Your task to perform on an android device: Open internet settings Image 0: 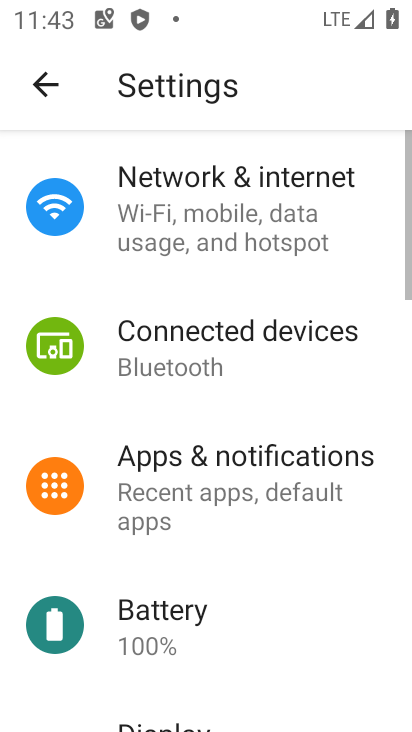
Step 0: press home button
Your task to perform on an android device: Open internet settings Image 1: 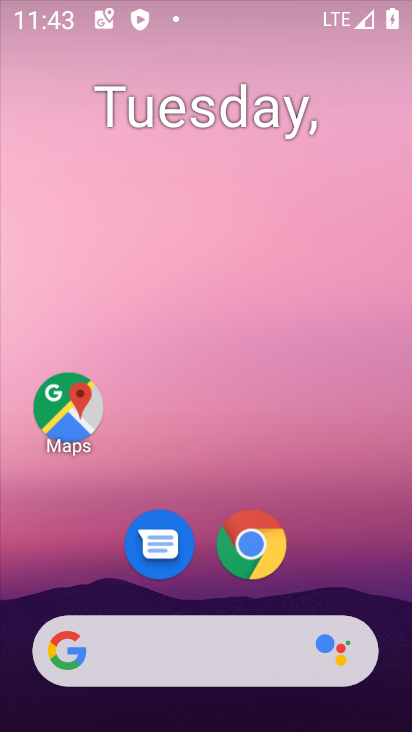
Step 1: drag from (389, 637) to (331, 96)
Your task to perform on an android device: Open internet settings Image 2: 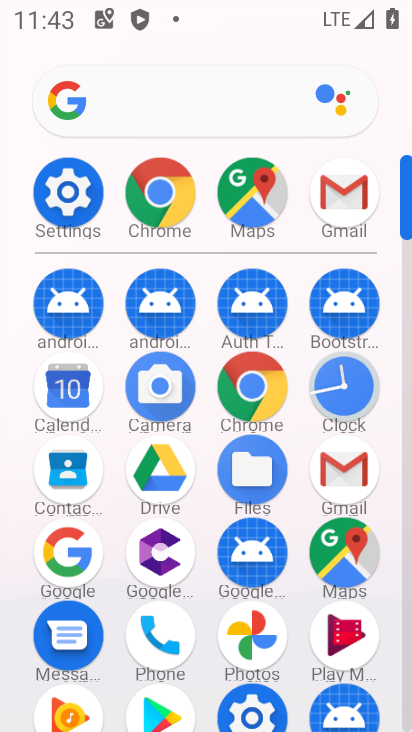
Step 2: click (57, 191)
Your task to perform on an android device: Open internet settings Image 3: 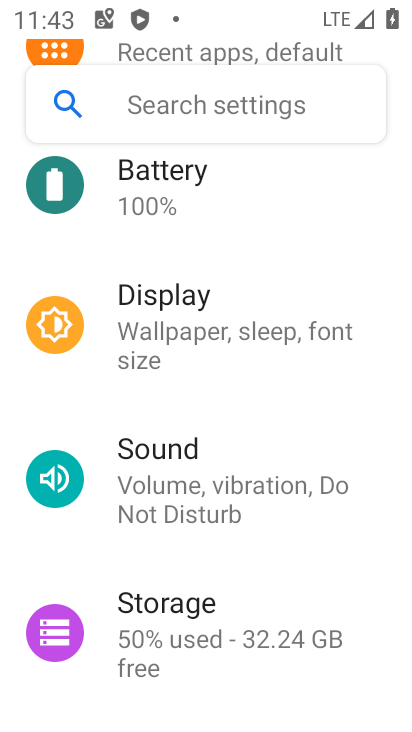
Step 3: drag from (261, 239) to (284, 635)
Your task to perform on an android device: Open internet settings Image 4: 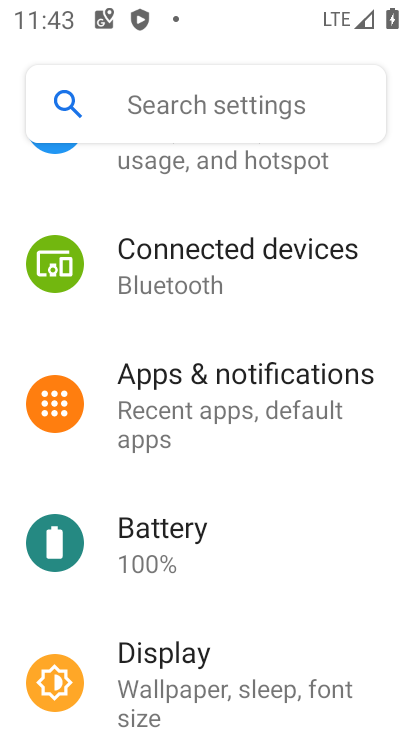
Step 4: drag from (240, 251) to (243, 710)
Your task to perform on an android device: Open internet settings Image 5: 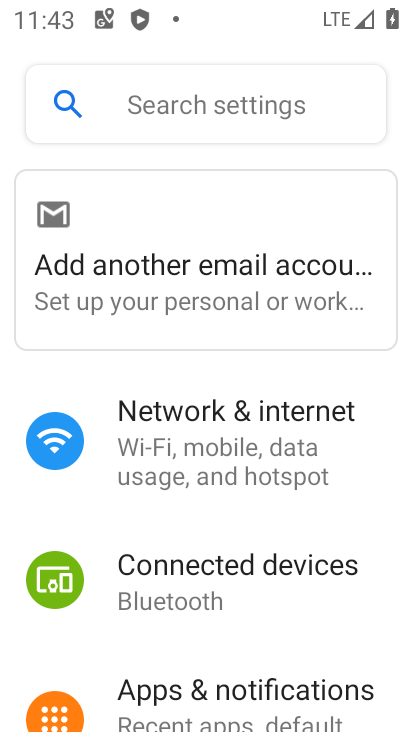
Step 5: click (277, 414)
Your task to perform on an android device: Open internet settings Image 6: 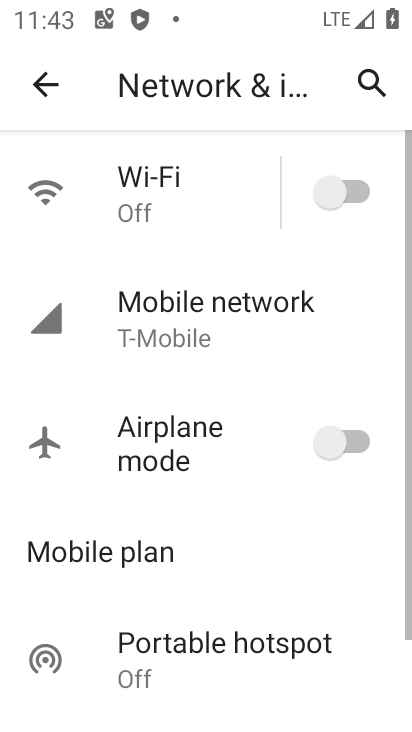
Step 6: task complete